Your task to perform on an android device: turn off location Image 0: 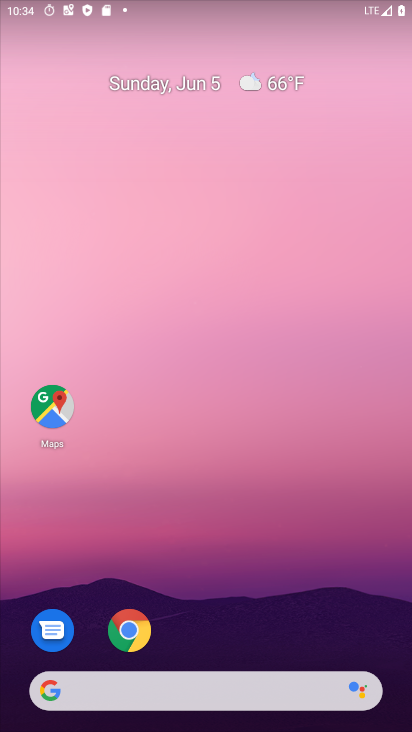
Step 0: drag from (221, 725) to (223, 106)
Your task to perform on an android device: turn off location Image 1: 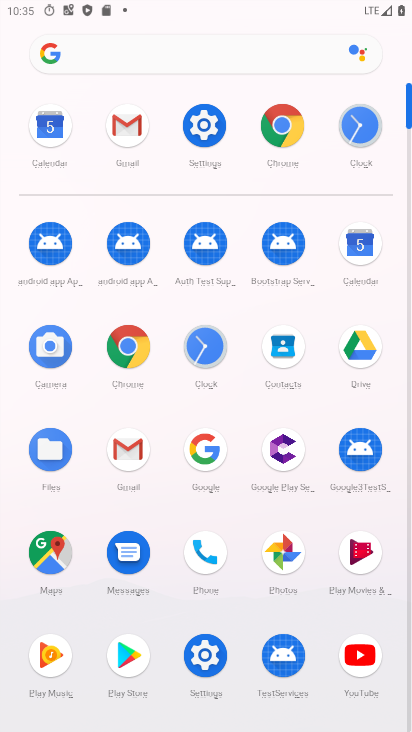
Step 1: click (198, 118)
Your task to perform on an android device: turn off location Image 2: 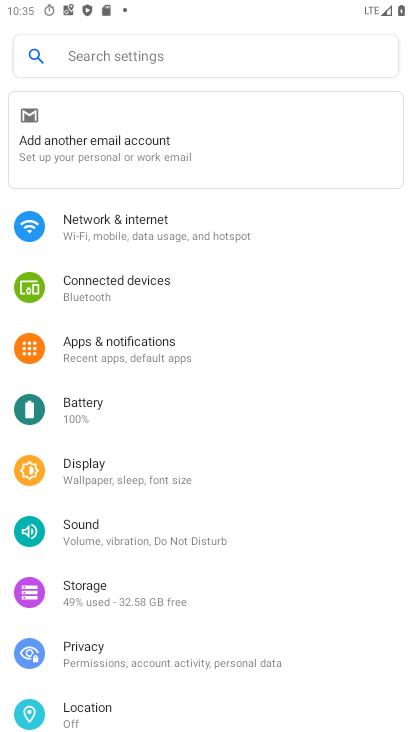
Step 2: click (92, 708)
Your task to perform on an android device: turn off location Image 3: 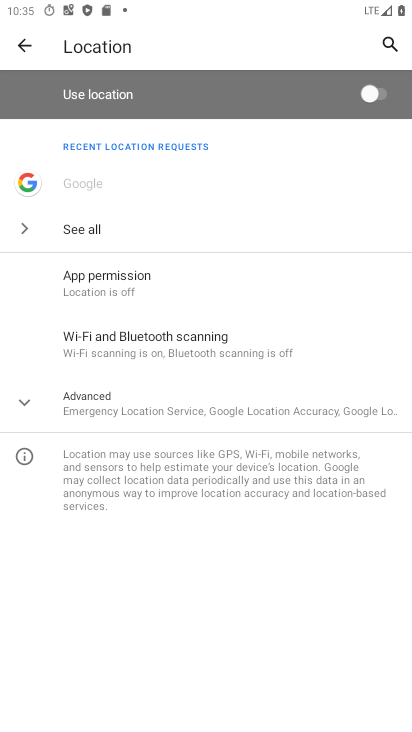
Step 3: task complete